Your task to perform on an android device: Go to network settings Image 0: 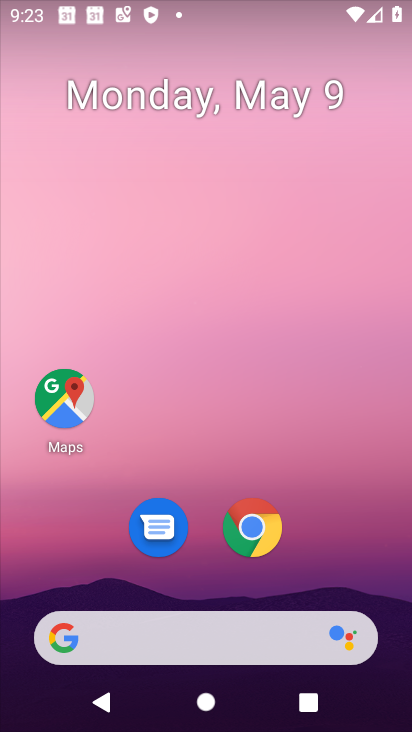
Step 0: drag from (216, 613) to (207, 216)
Your task to perform on an android device: Go to network settings Image 1: 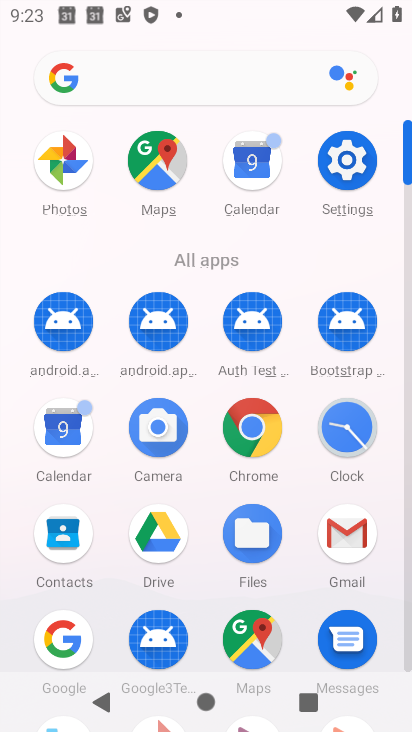
Step 1: click (325, 167)
Your task to perform on an android device: Go to network settings Image 2: 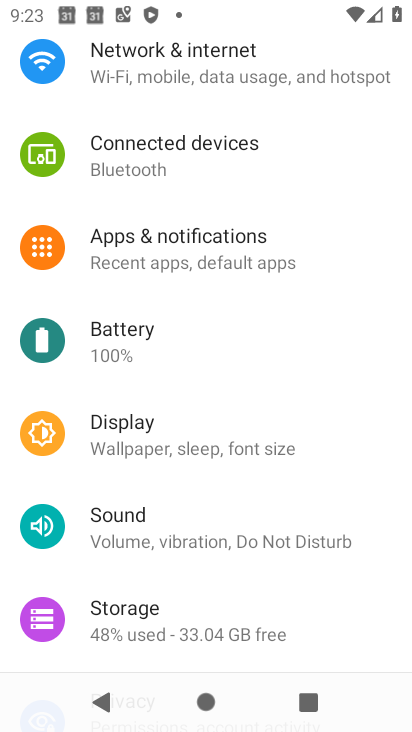
Step 2: click (131, 76)
Your task to perform on an android device: Go to network settings Image 3: 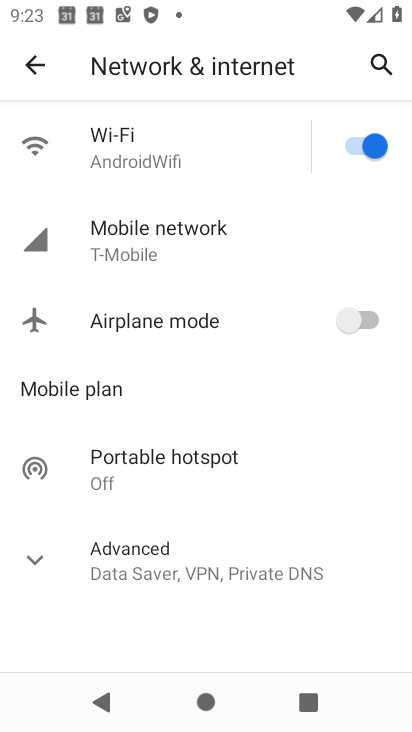
Step 3: click (166, 153)
Your task to perform on an android device: Go to network settings Image 4: 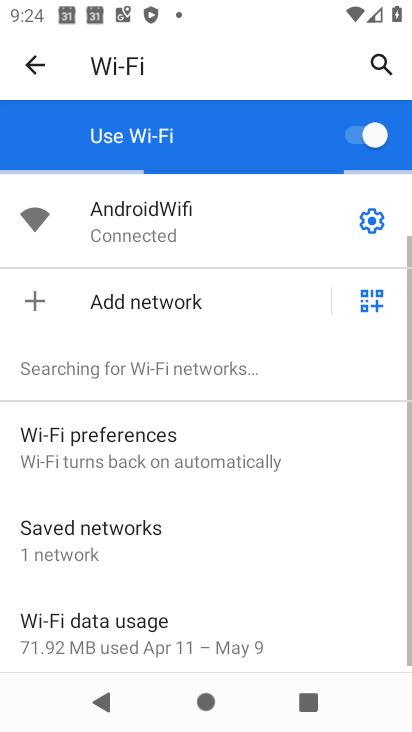
Step 4: click (20, 71)
Your task to perform on an android device: Go to network settings Image 5: 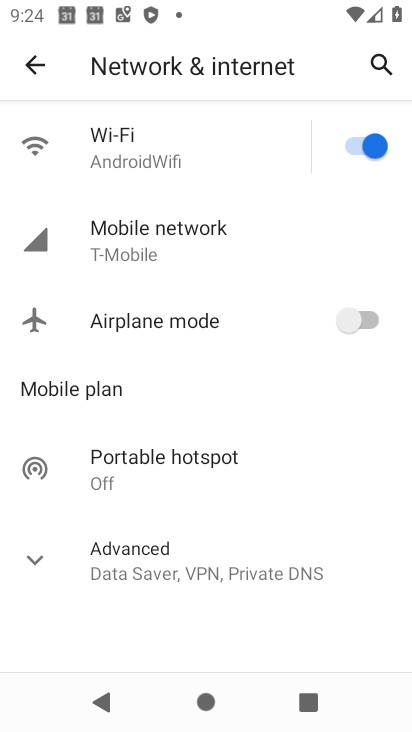
Step 5: click (139, 234)
Your task to perform on an android device: Go to network settings Image 6: 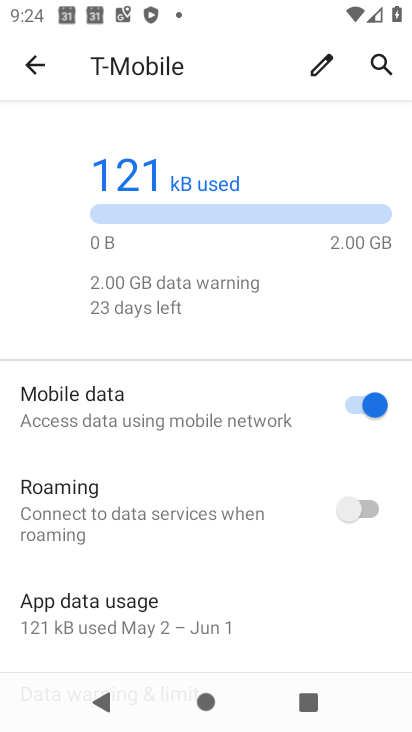
Step 6: drag from (187, 589) to (170, 237)
Your task to perform on an android device: Go to network settings Image 7: 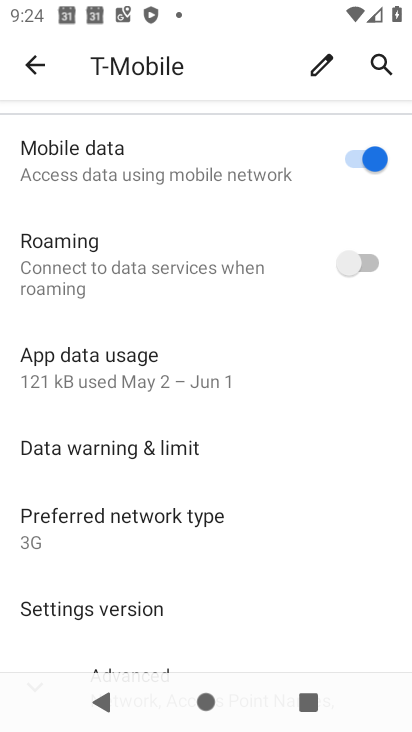
Step 7: drag from (154, 620) to (148, 321)
Your task to perform on an android device: Go to network settings Image 8: 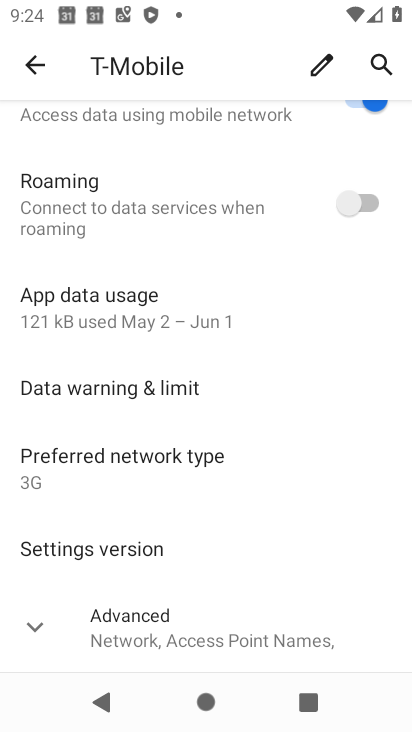
Step 8: click (145, 623)
Your task to perform on an android device: Go to network settings Image 9: 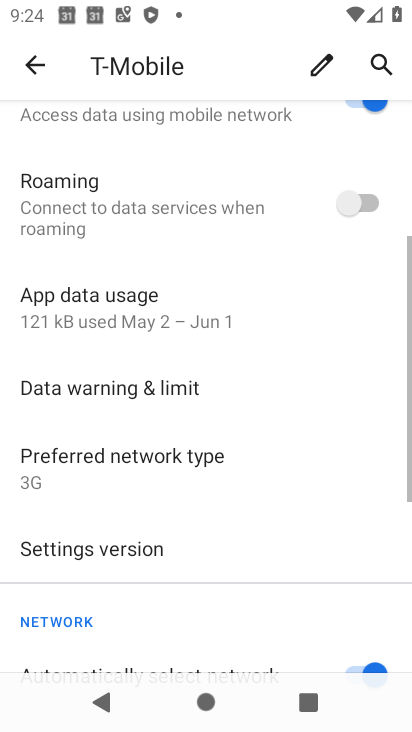
Step 9: task complete